Your task to perform on an android device: snooze an email in the gmail app Image 0: 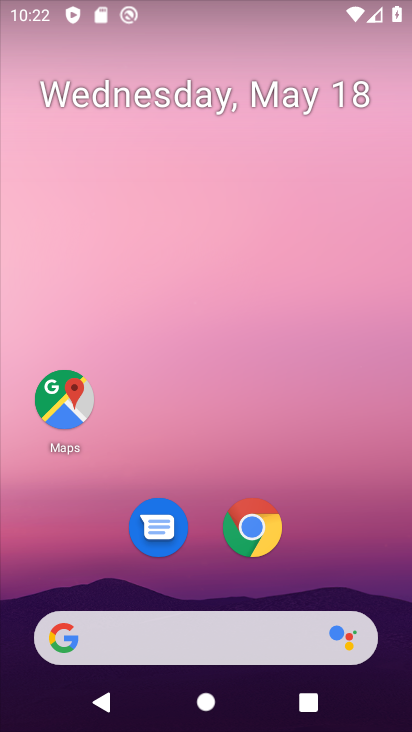
Step 0: drag from (362, 574) to (214, 0)
Your task to perform on an android device: snooze an email in the gmail app Image 1: 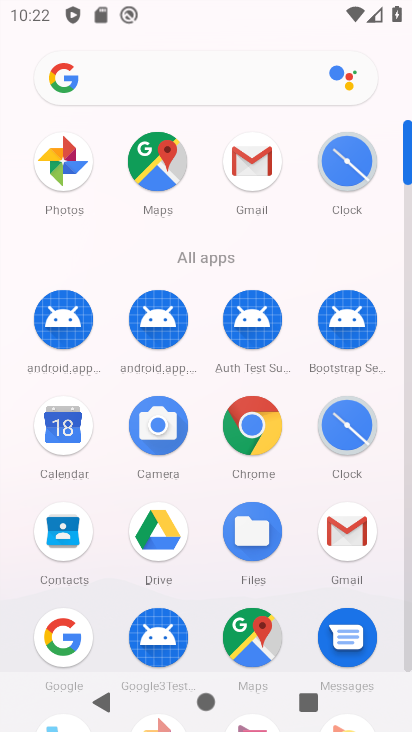
Step 1: click (249, 183)
Your task to perform on an android device: snooze an email in the gmail app Image 2: 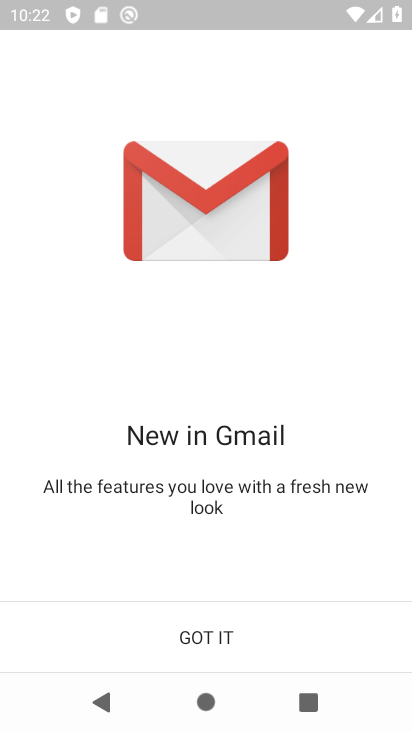
Step 2: click (208, 646)
Your task to perform on an android device: snooze an email in the gmail app Image 3: 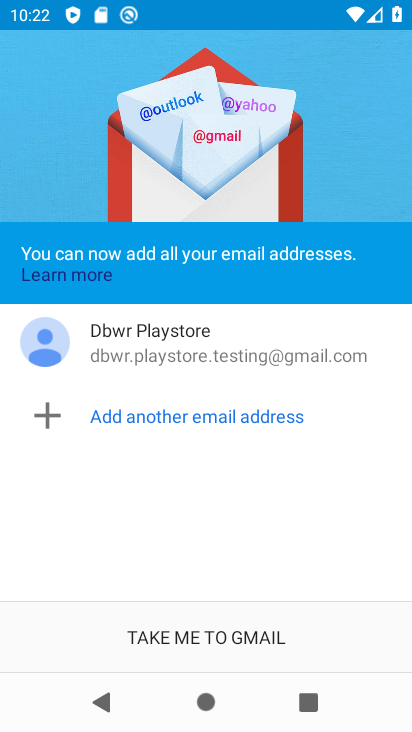
Step 3: click (208, 646)
Your task to perform on an android device: snooze an email in the gmail app Image 4: 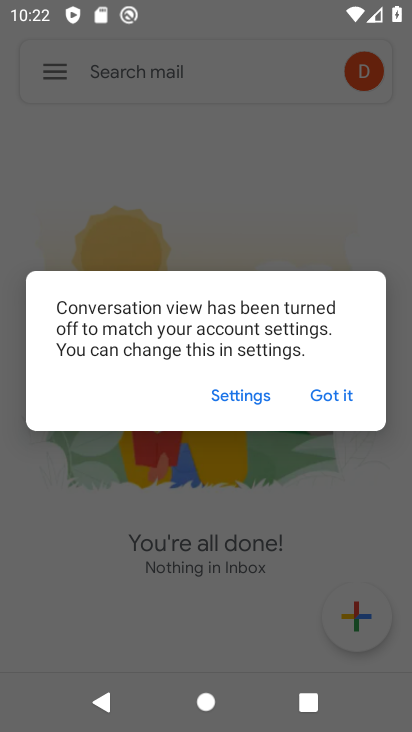
Step 4: click (345, 388)
Your task to perform on an android device: snooze an email in the gmail app Image 5: 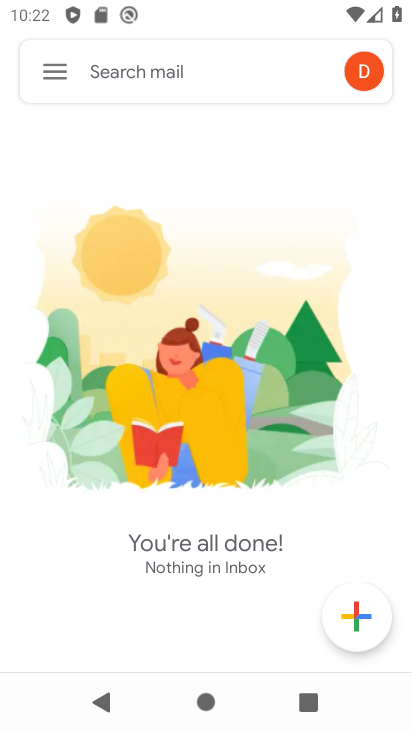
Step 5: click (62, 79)
Your task to perform on an android device: snooze an email in the gmail app Image 6: 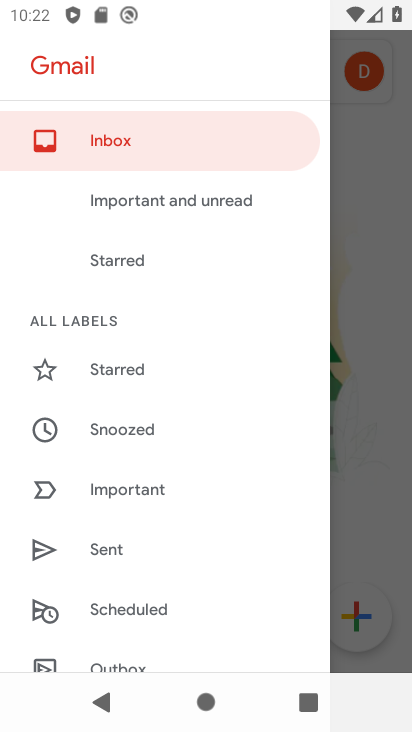
Step 6: click (348, 329)
Your task to perform on an android device: snooze an email in the gmail app Image 7: 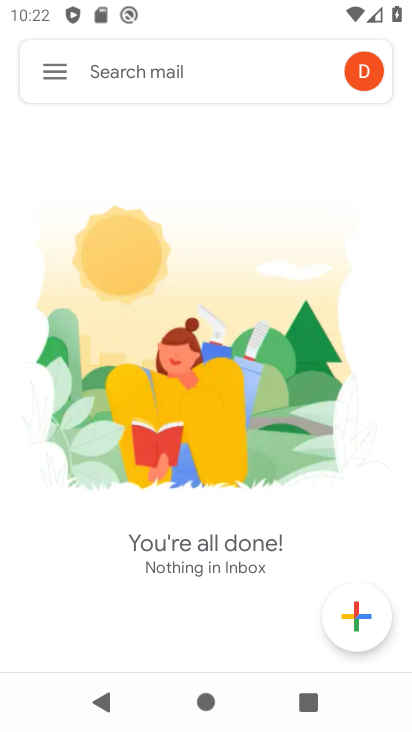
Step 7: task complete